Your task to perform on an android device: Toggle the flashlight Image 0: 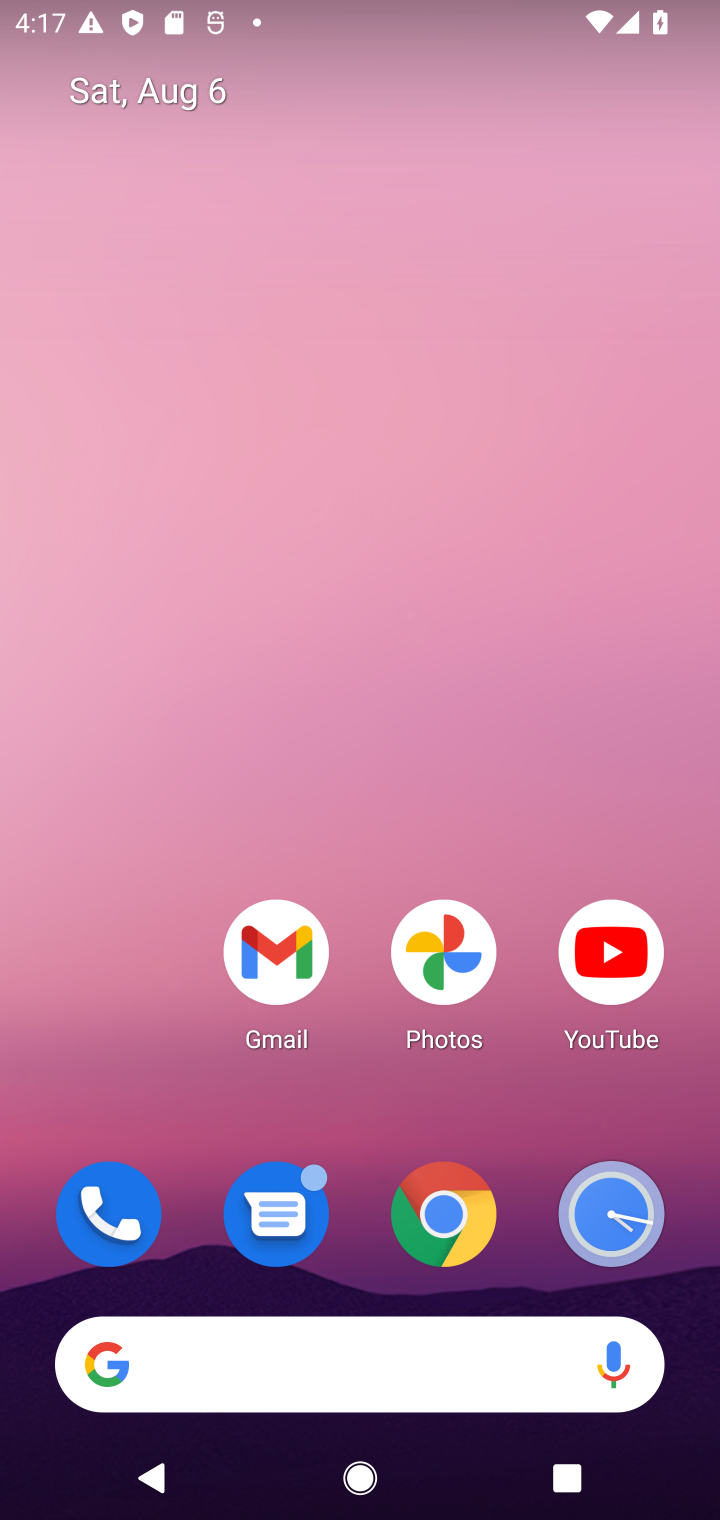
Step 0: drag from (352, 870) to (432, 287)
Your task to perform on an android device: Toggle the flashlight Image 1: 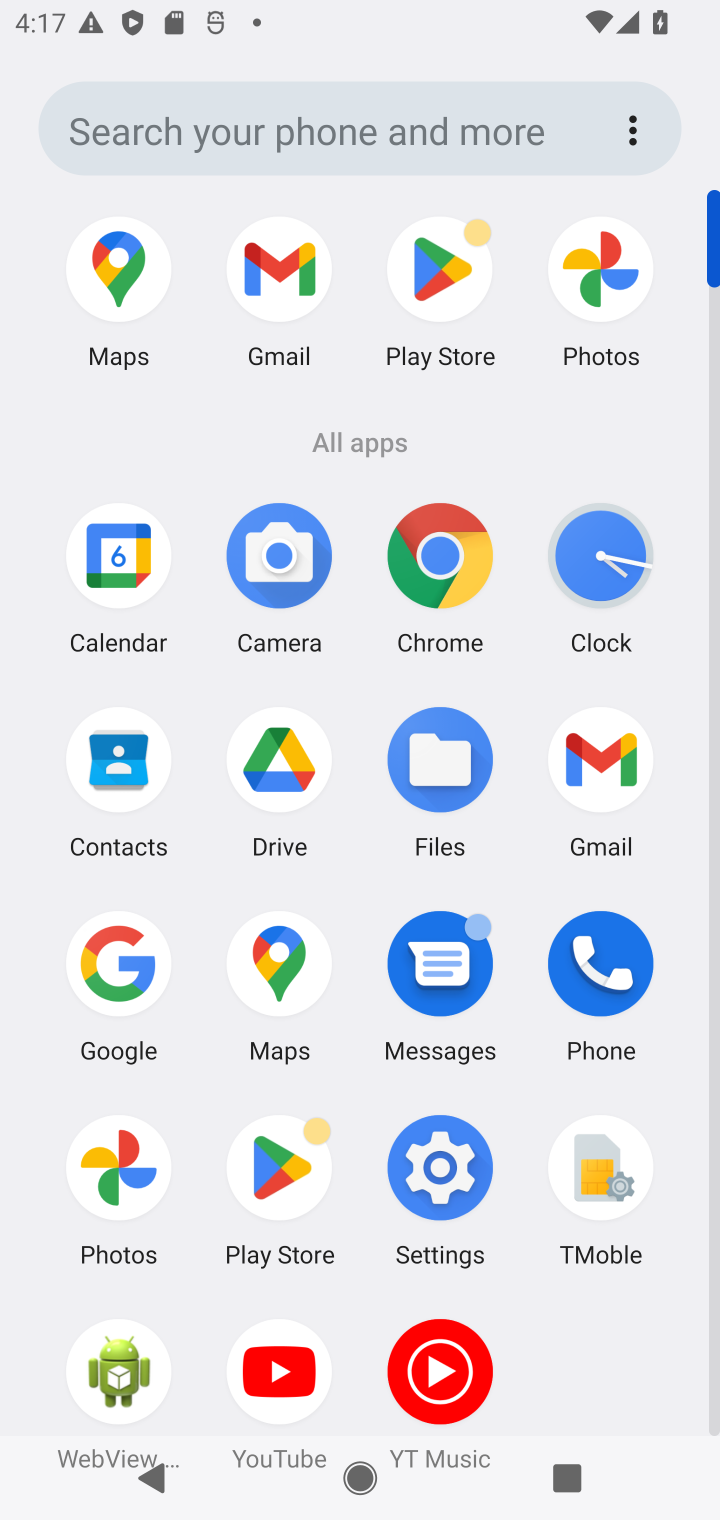
Step 1: task complete